Your task to perform on an android device: turn on airplane mode Image 0: 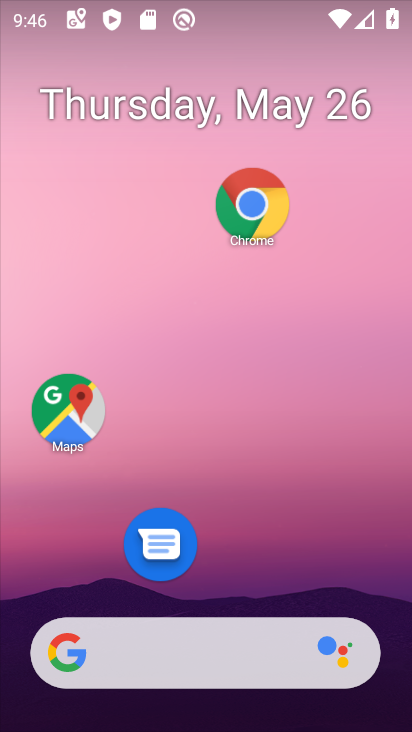
Step 0: press home button
Your task to perform on an android device: turn on airplane mode Image 1: 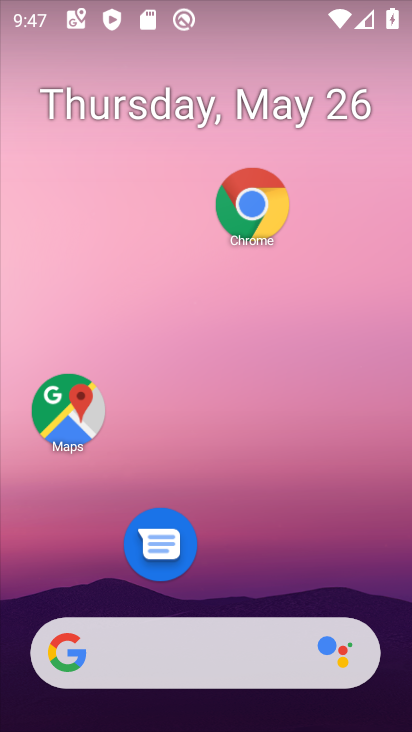
Step 1: drag from (242, 9) to (240, 576)
Your task to perform on an android device: turn on airplane mode Image 2: 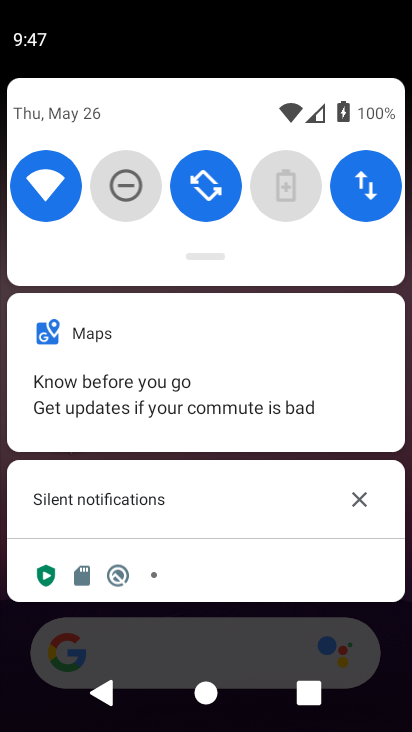
Step 2: drag from (219, 256) to (197, 718)
Your task to perform on an android device: turn on airplane mode Image 3: 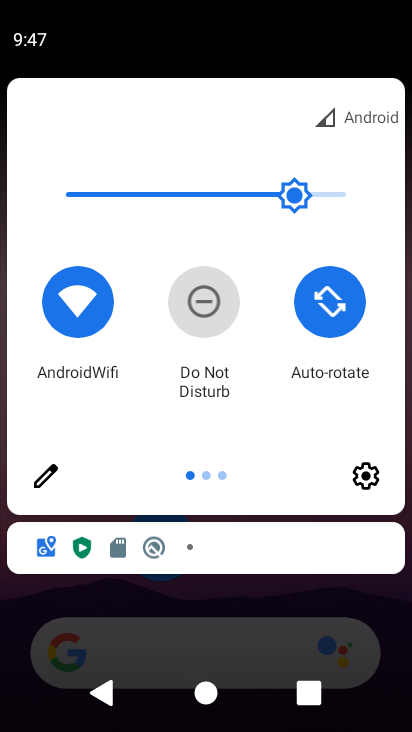
Step 3: drag from (360, 341) to (13, 338)
Your task to perform on an android device: turn on airplane mode Image 4: 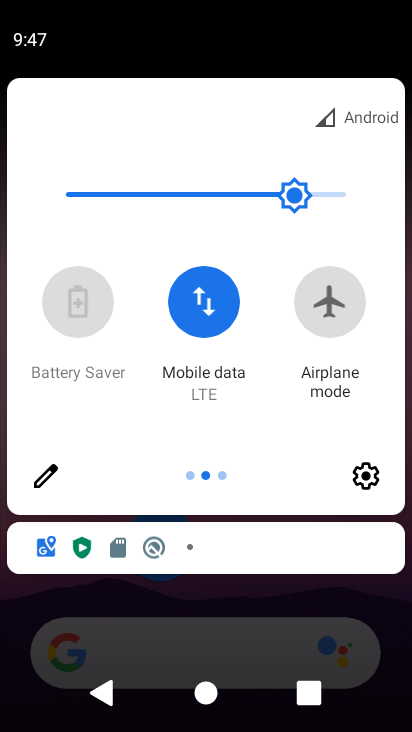
Step 4: click (352, 305)
Your task to perform on an android device: turn on airplane mode Image 5: 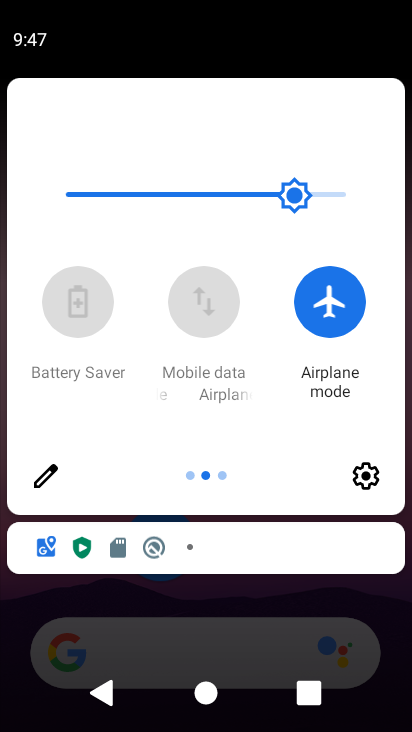
Step 5: task complete